Your task to perform on an android device: see tabs open on other devices in the chrome app Image 0: 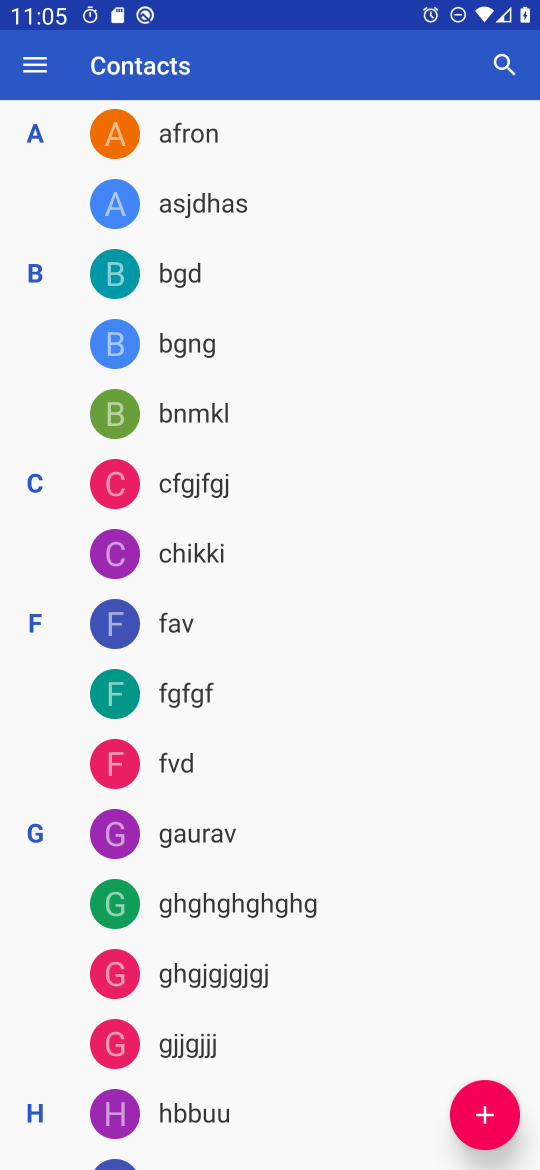
Step 0: press home button
Your task to perform on an android device: see tabs open on other devices in the chrome app Image 1: 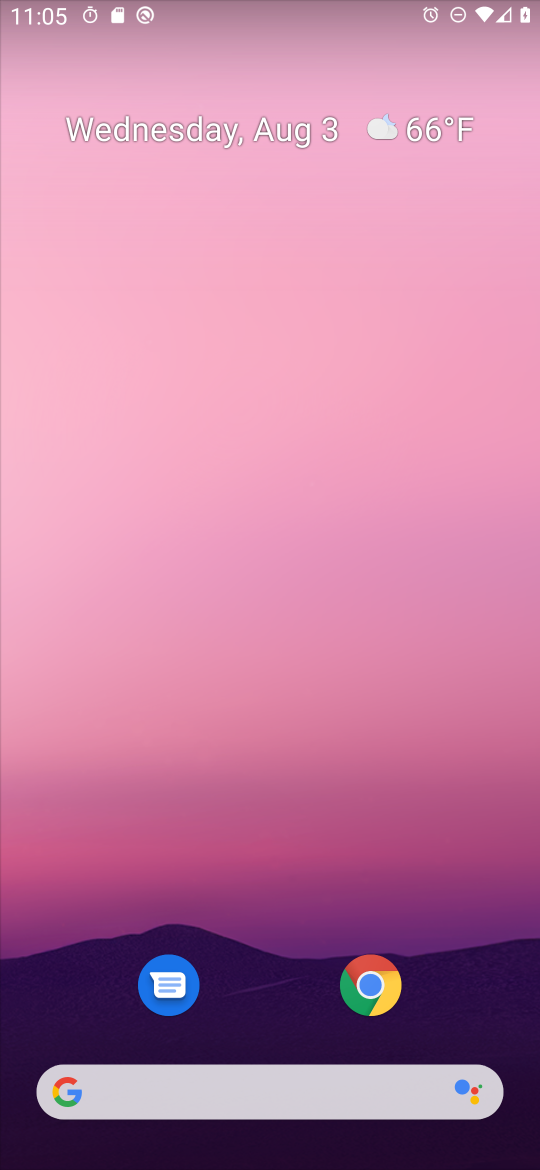
Step 1: click (395, 995)
Your task to perform on an android device: see tabs open on other devices in the chrome app Image 2: 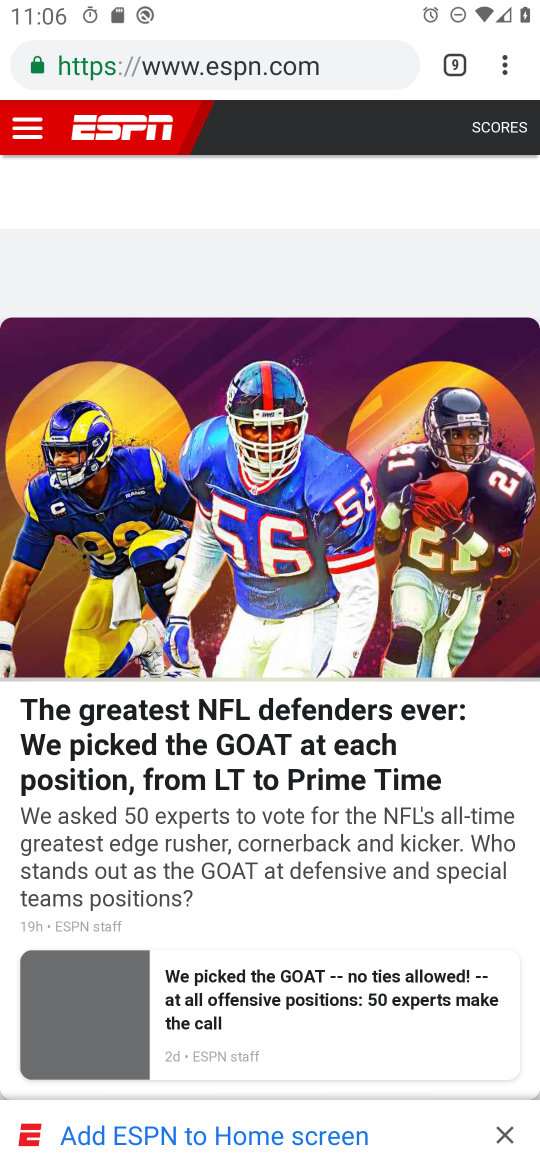
Step 2: click (518, 71)
Your task to perform on an android device: see tabs open on other devices in the chrome app Image 3: 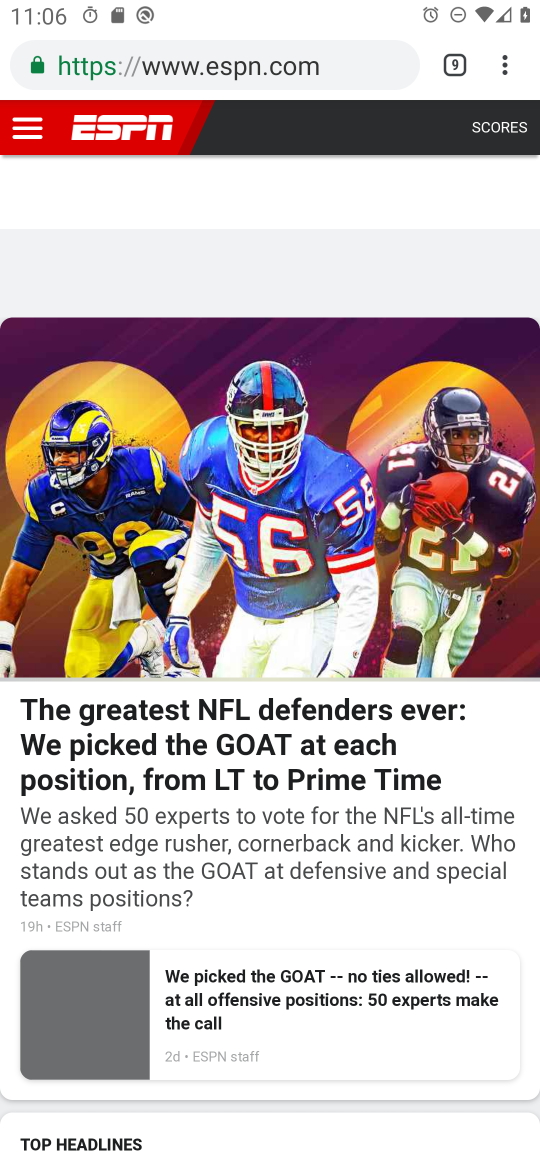
Step 3: click (509, 62)
Your task to perform on an android device: see tabs open on other devices in the chrome app Image 4: 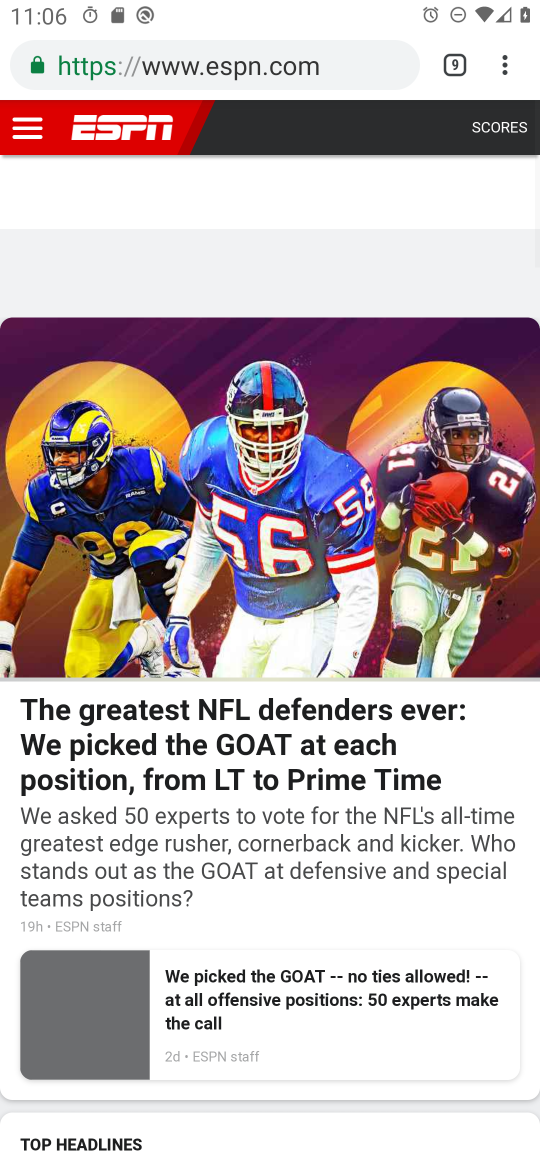
Step 4: task complete